Your task to perform on an android device: Open settings Image 0: 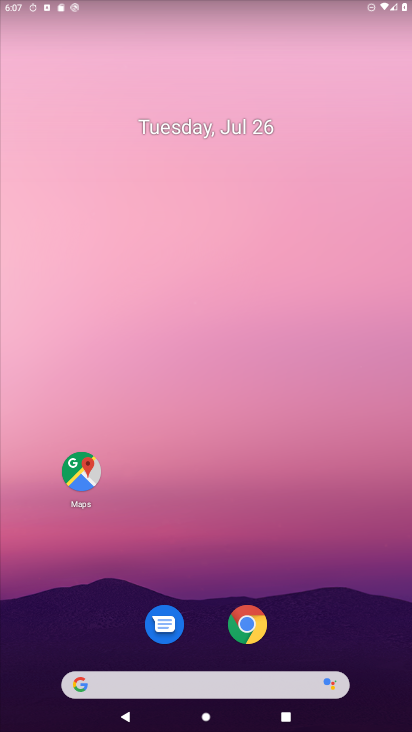
Step 0: drag from (226, 669) to (239, 48)
Your task to perform on an android device: Open settings Image 1: 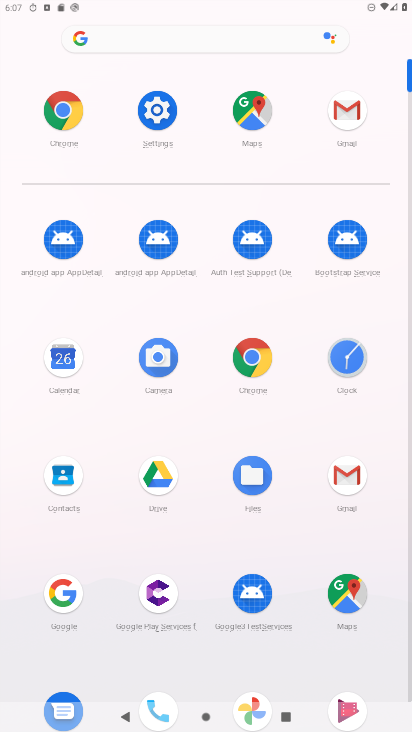
Step 1: click (160, 107)
Your task to perform on an android device: Open settings Image 2: 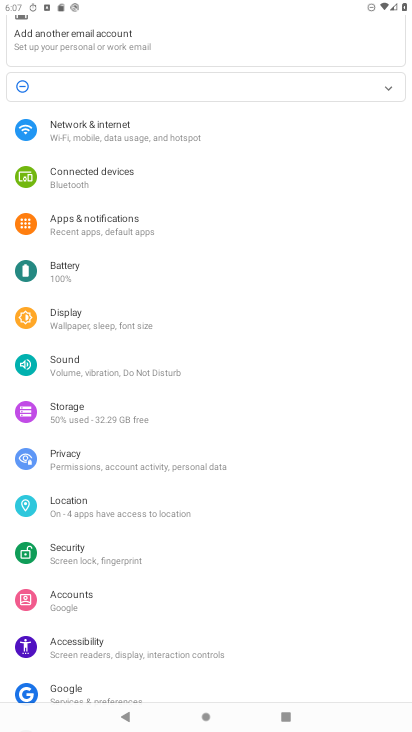
Step 2: task complete